Your task to perform on an android device: toggle data saver in the chrome app Image 0: 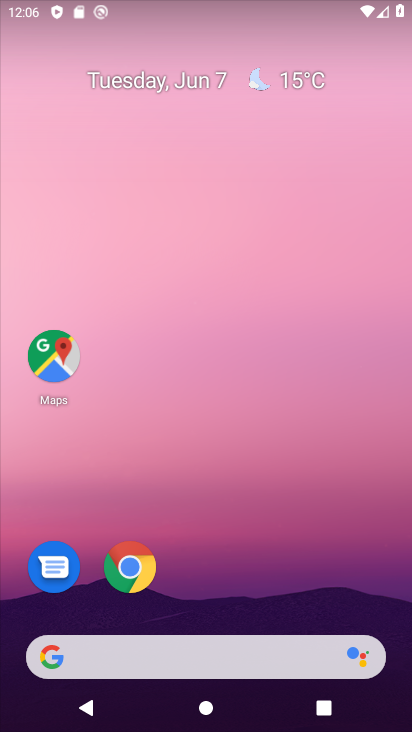
Step 0: drag from (353, 639) to (410, 23)
Your task to perform on an android device: toggle data saver in the chrome app Image 1: 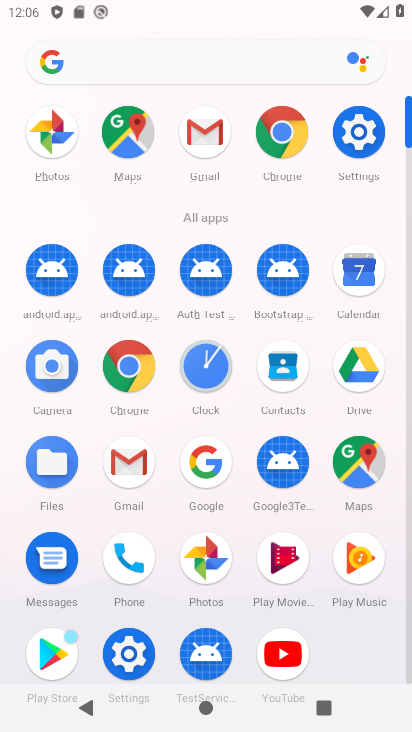
Step 1: click (131, 377)
Your task to perform on an android device: toggle data saver in the chrome app Image 2: 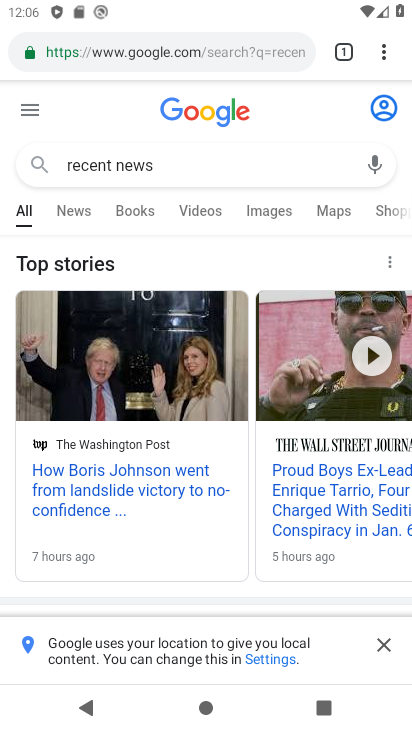
Step 2: drag from (383, 50) to (222, 584)
Your task to perform on an android device: toggle data saver in the chrome app Image 3: 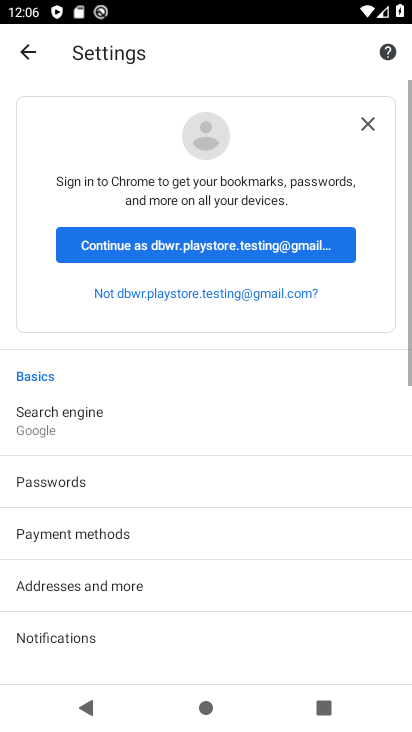
Step 3: drag from (226, 566) to (280, 386)
Your task to perform on an android device: toggle data saver in the chrome app Image 4: 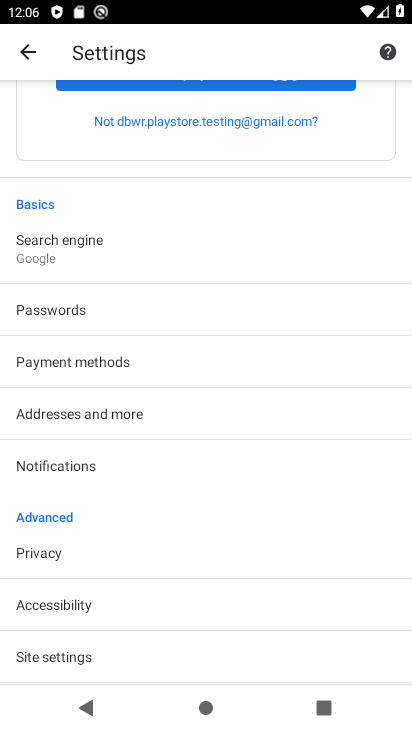
Step 4: drag from (165, 598) to (221, 316)
Your task to perform on an android device: toggle data saver in the chrome app Image 5: 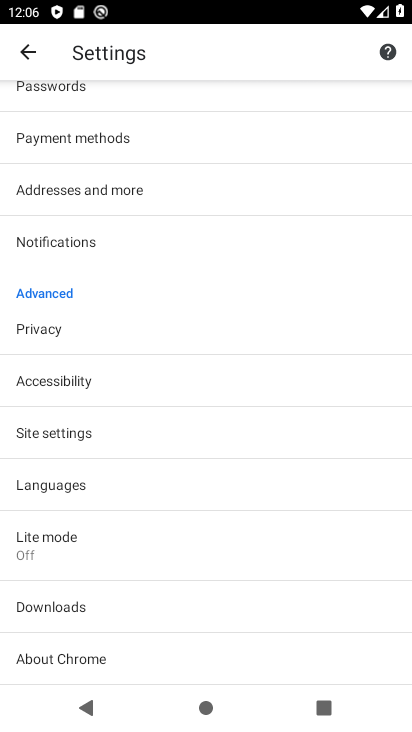
Step 5: click (175, 471)
Your task to perform on an android device: toggle data saver in the chrome app Image 6: 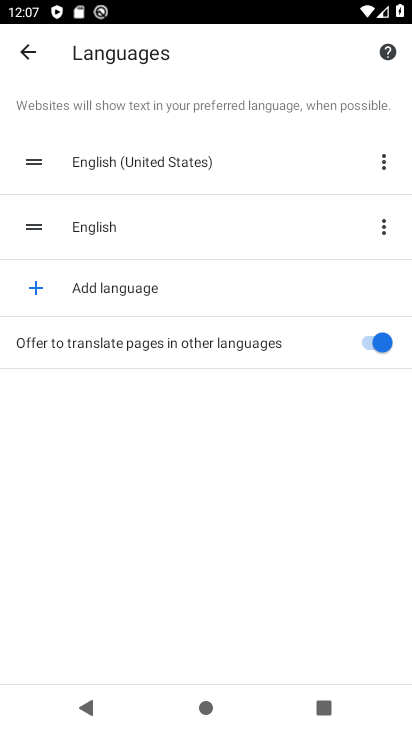
Step 6: press back button
Your task to perform on an android device: toggle data saver in the chrome app Image 7: 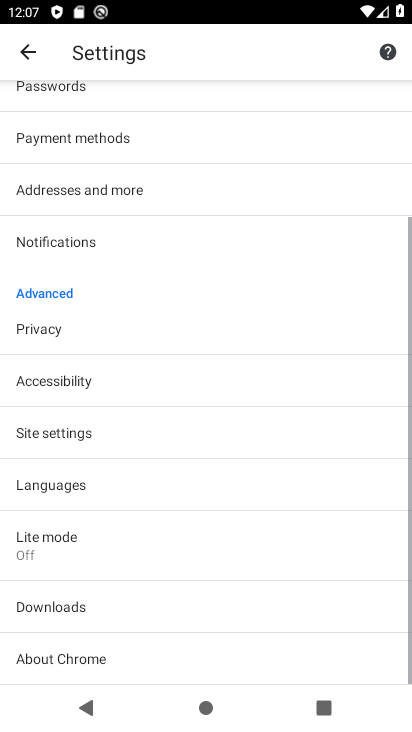
Step 7: click (83, 547)
Your task to perform on an android device: toggle data saver in the chrome app Image 8: 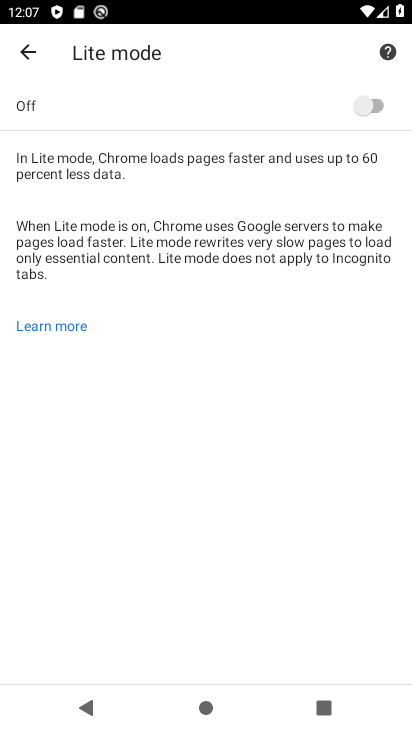
Step 8: click (372, 99)
Your task to perform on an android device: toggle data saver in the chrome app Image 9: 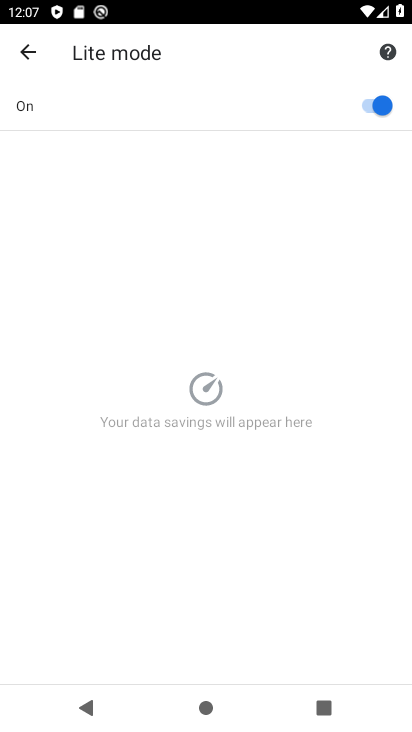
Step 9: task complete